Your task to perform on an android device: Do I have any events this weekend? Image 0: 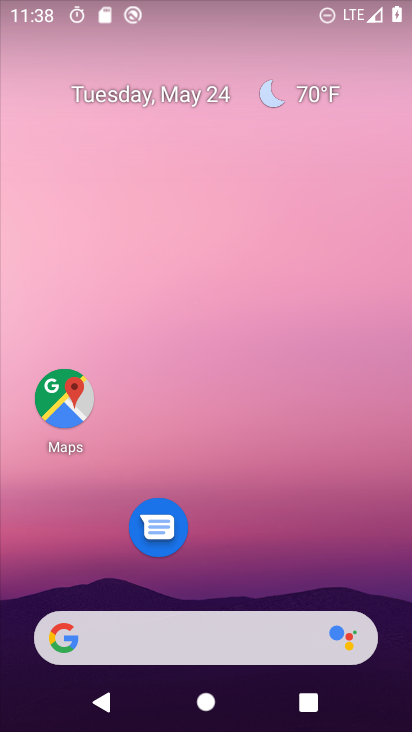
Step 0: drag from (227, 558) to (280, 89)
Your task to perform on an android device: Do I have any events this weekend? Image 1: 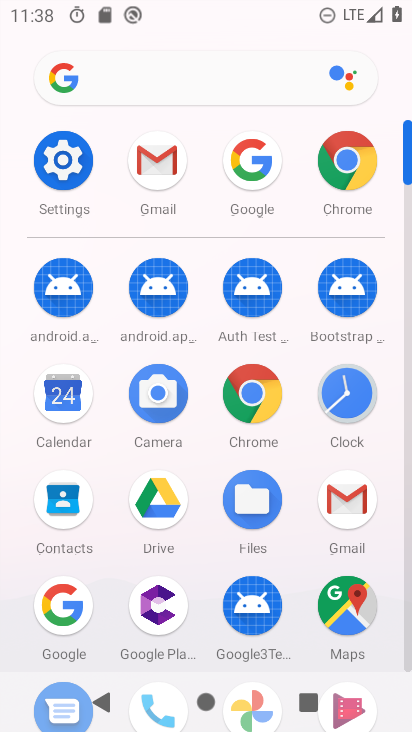
Step 1: click (64, 393)
Your task to perform on an android device: Do I have any events this weekend? Image 2: 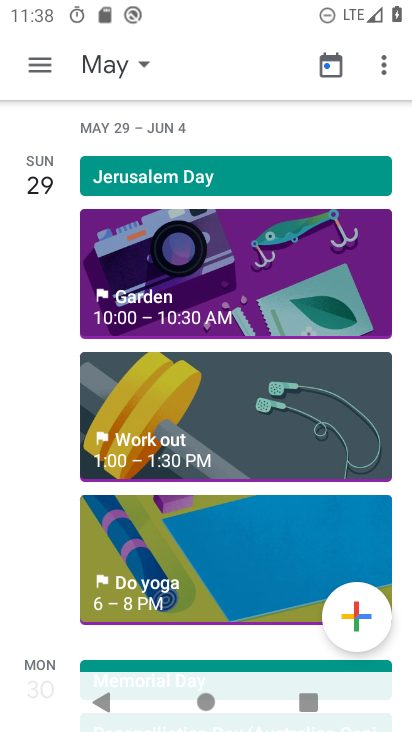
Step 2: click (135, 68)
Your task to perform on an android device: Do I have any events this weekend? Image 3: 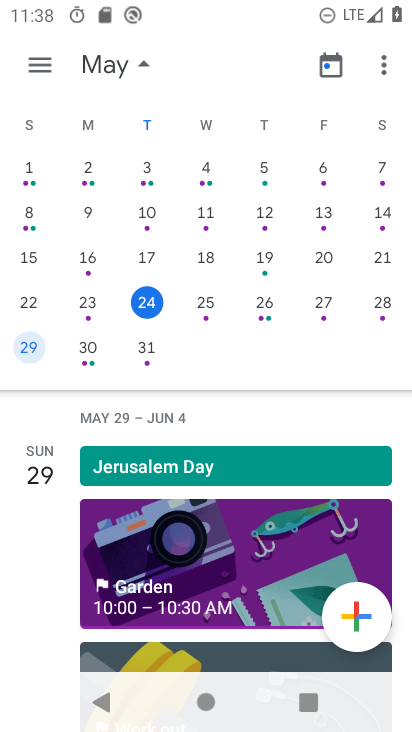
Step 3: click (320, 305)
Your task to perform on an android device: Do I have any events this weekend? Image 4: 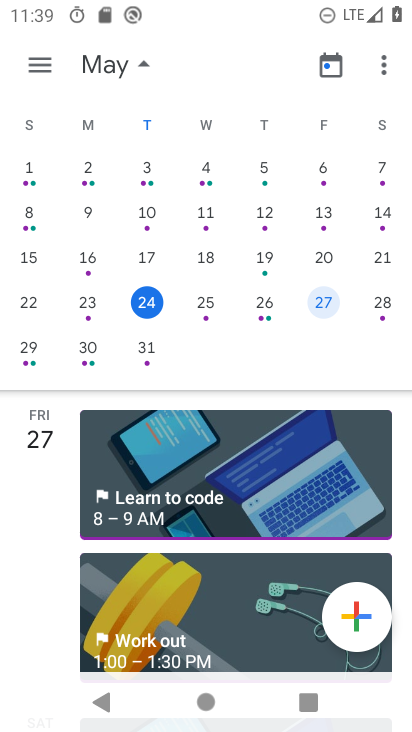
Step 4: task complete